Your task to perform on an android device: open device folders in google photos Image 0: 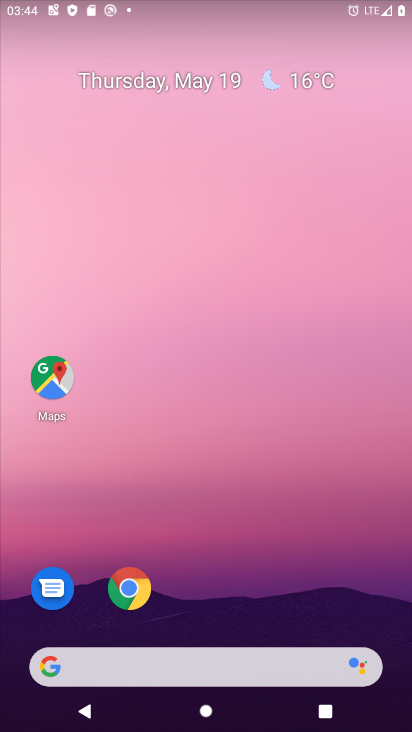
Step 0: drag from (218, 577) to (286, 95)
Your task to perform on an android device: open device folders in google photos Image 1: 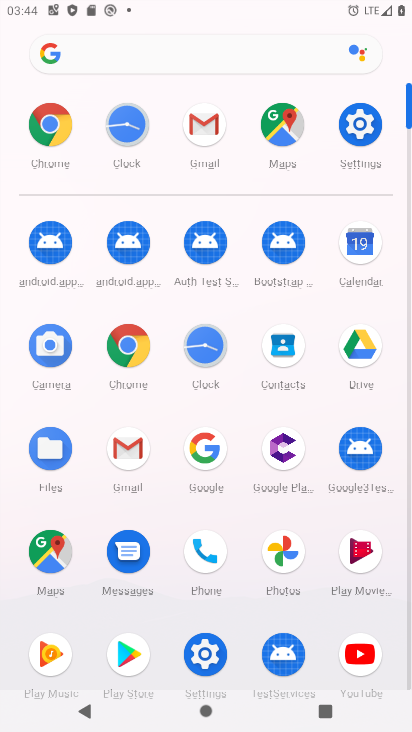
Step 1: click (269, 561)
Your task to perform on an android device: open device folders in google photos Image 2: 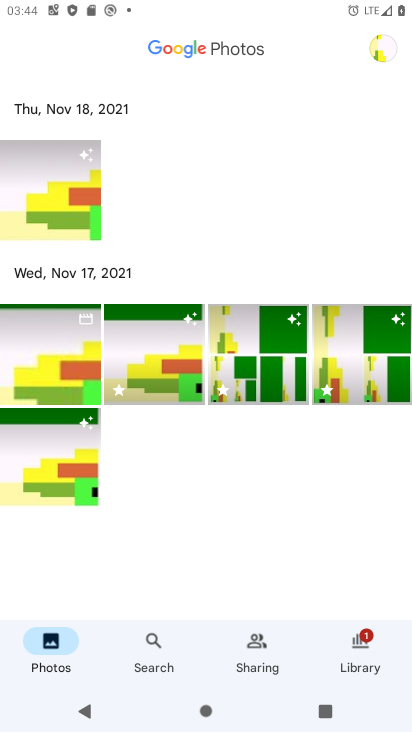
Step 2: click (362, 650)
Your task to perform on an android device: open device folders in google photos Image 3: 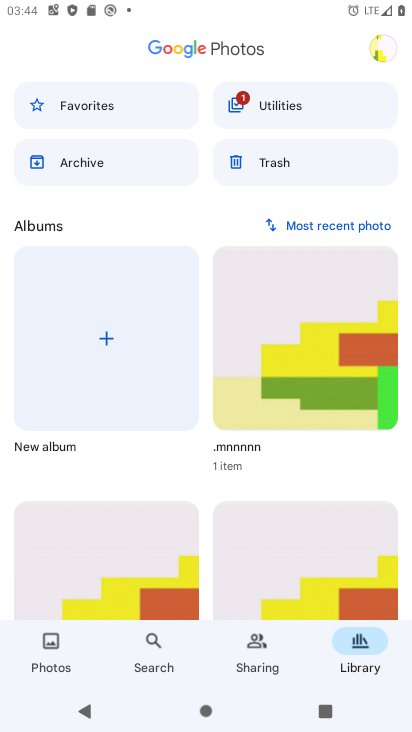
Step 3: click (294, 103)
Your task to perform on an android device: open device folders in google photos Image 4: 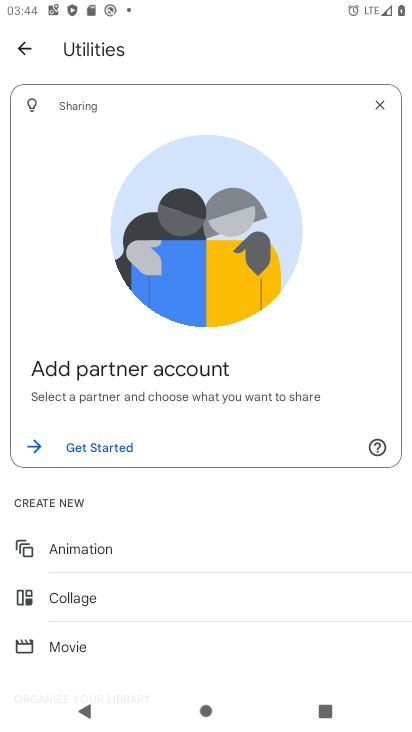
Step 4: drag from (199, 545) to (271, 86)
Your task to perform on an android device: open device folders in google photos Image 5: 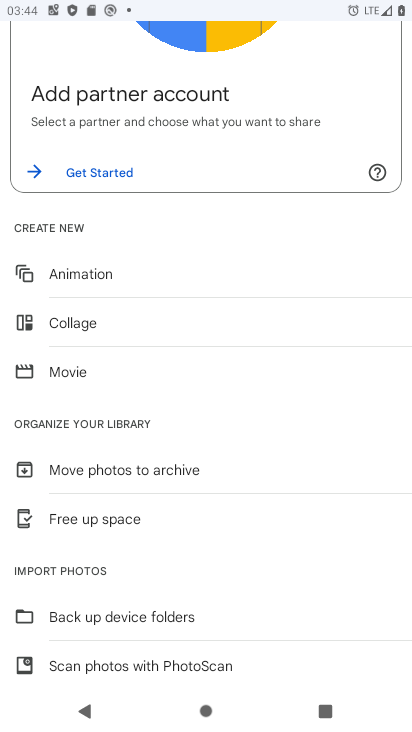
Step 5: click (152, 603)
Your task to perform on an android device: open device folders in google photos Image 6: 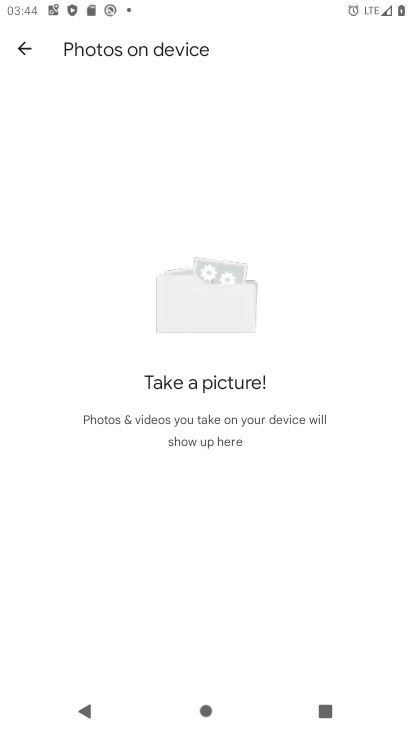
Step 6: task complete